Your task to perform on an android device: turn off improve location accuracy Image 0: 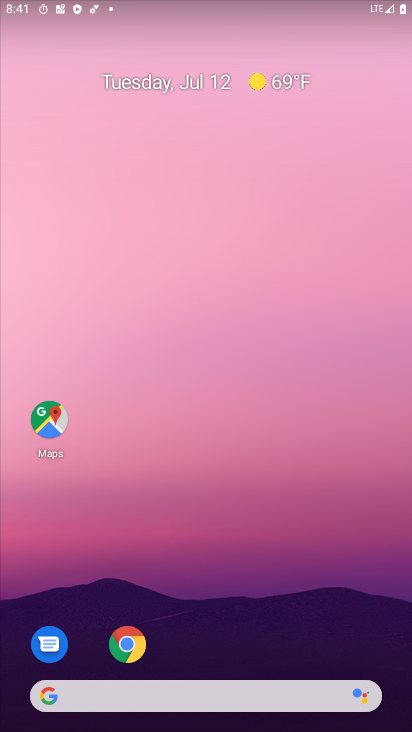
Step 0: press home button
Your task to perform on an android device: turn off improve location accuracy Image 1: 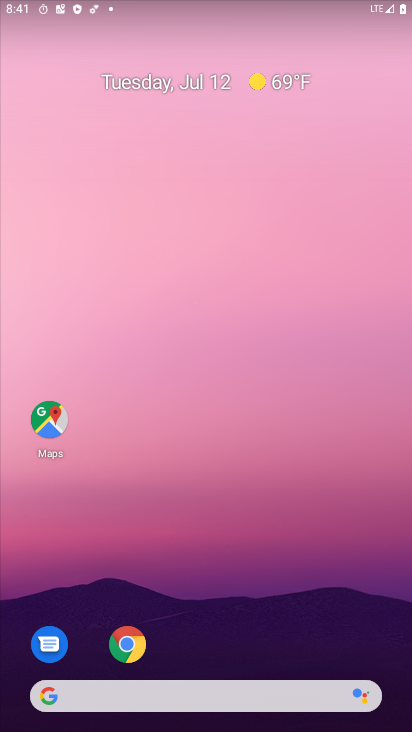
Step 1: drag from (210, 660) to (245, 91)
Your task to perform on an android device: turn off improve location accuracy Image 2: 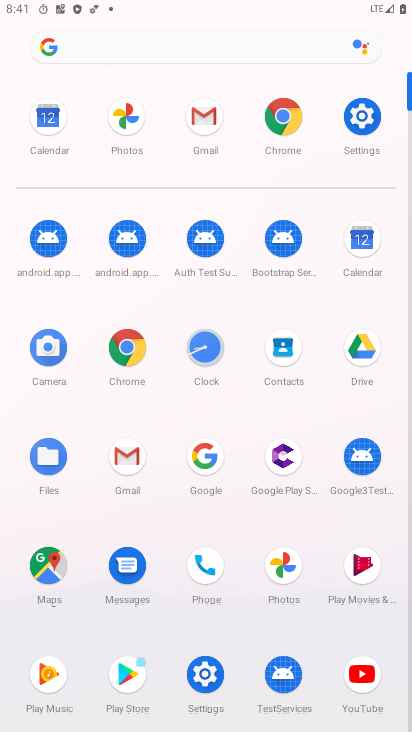
Step 2: click (362, 110)
Your task to perform on an android device: turn off improve location accuracy Image 3: 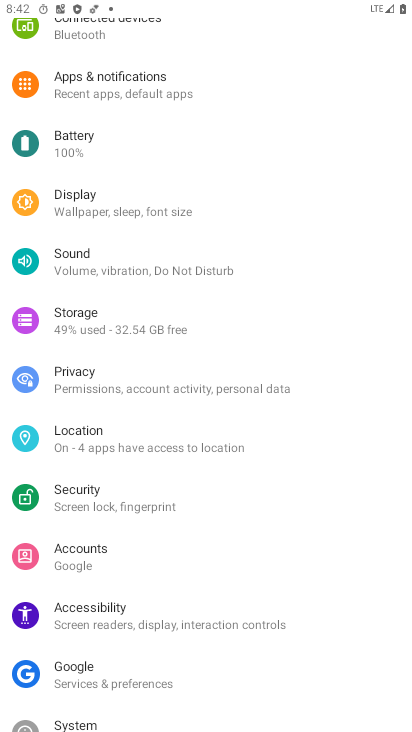
Step 3: click (116, 427)
Your task to perform on an android device: turn off improve location accuracy Image 4: 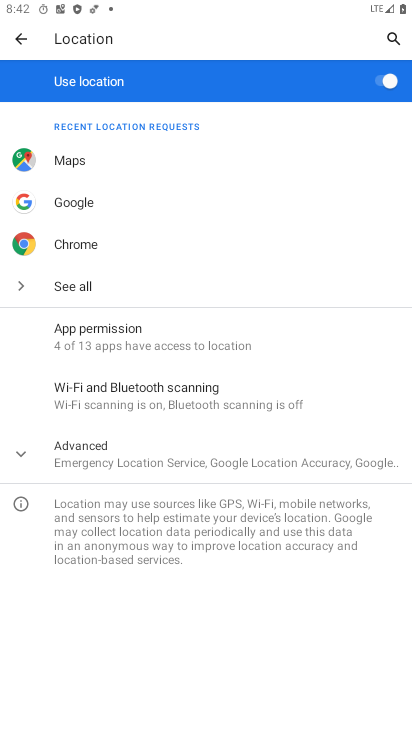
Step 4: click (19, 450)
Your task to perform on an android device: turn off improve location accuracy Image 5: 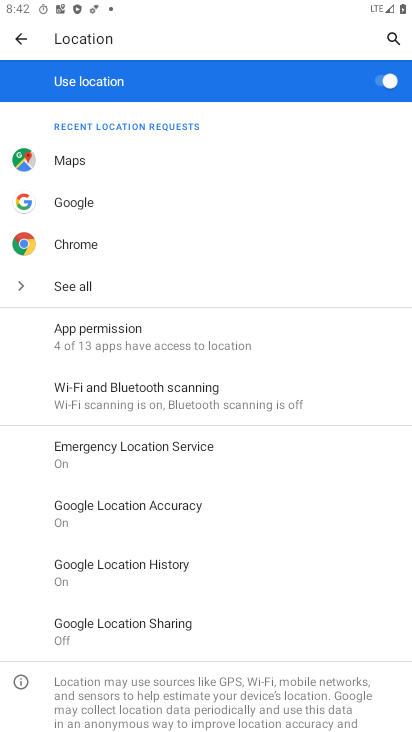
Step 5: click (126, 509)
Your task to perform on an android device: turn off improve location accuracy Image 6: 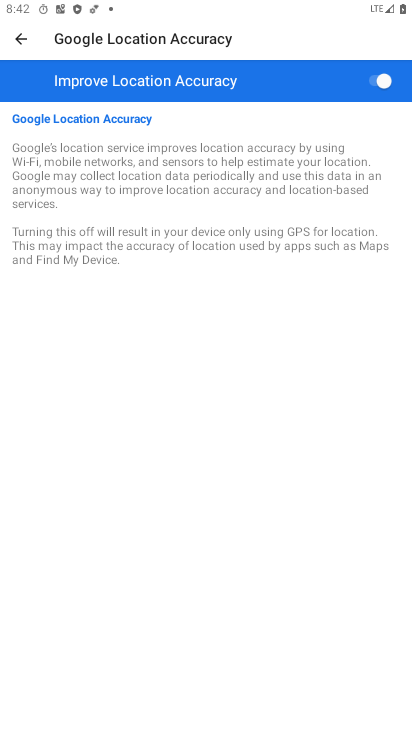
Step 6: click (381, 83)
Your task to perform on an android device: turn off improve location accuracy Image 7: 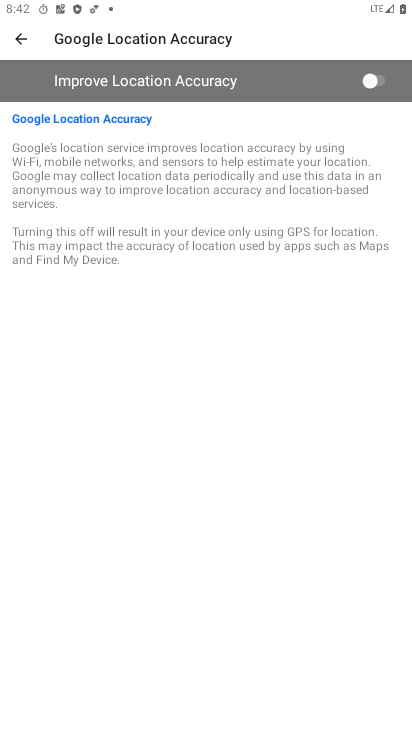
Step 7: task complete